Your task to perform on an android device: refresh tabs in the chrome app Image 0: 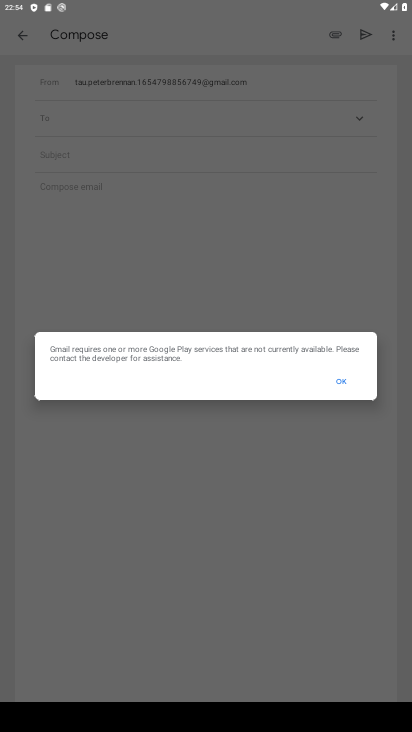
Step 0: press home button
Your task to perform on an android device: refresh tabs in the chrome app Image 1: 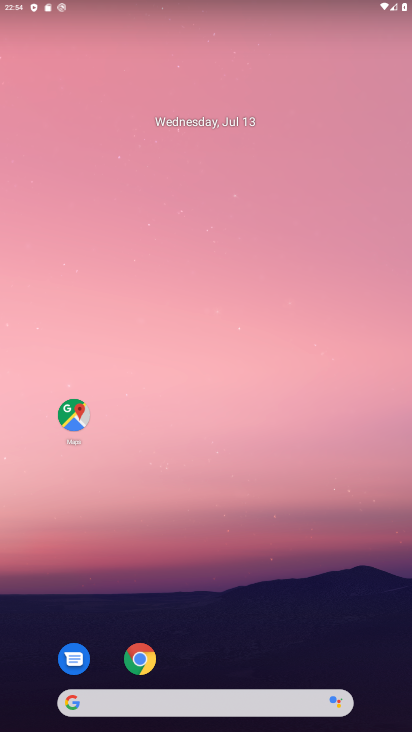
Step 1: click (135, 663)
Your task to perform on an android device: refresh tabs in the chrome app Image 2: 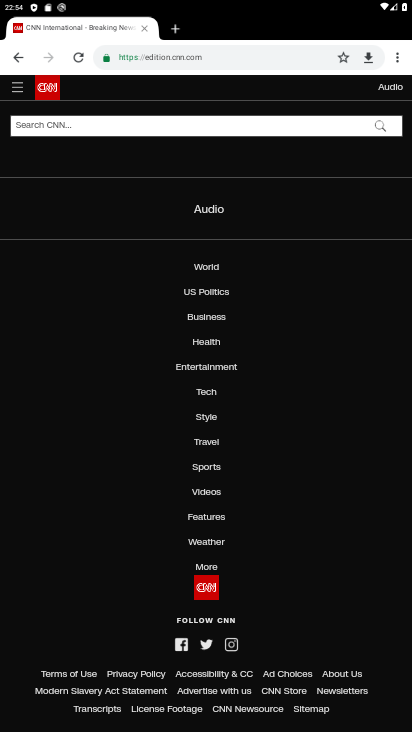
Step 2: click (396, 57)
Your task to perform on an android device: refresh tabs in the chrome app Image 3: 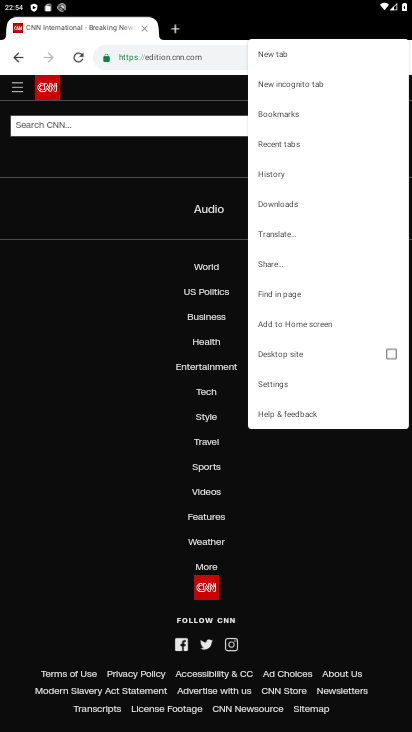
Step 3: click (156, 274)
Your task to perform on an android device: refresh tabs in the chrome app Image 4: 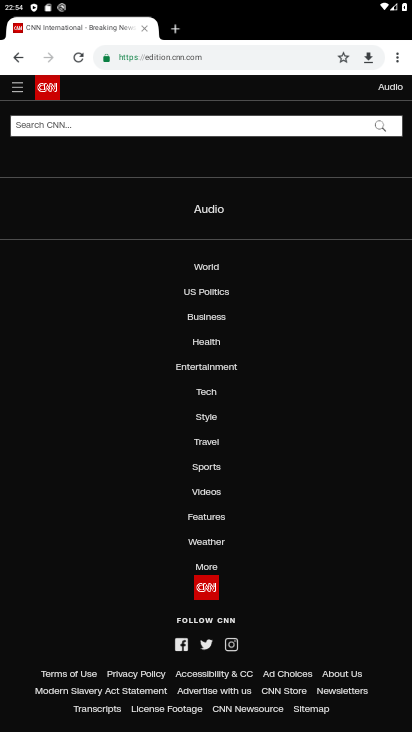
Step 4: click (81, 61)
Your task to perform on an android device: refresh tabs in the chrome app Image 5: 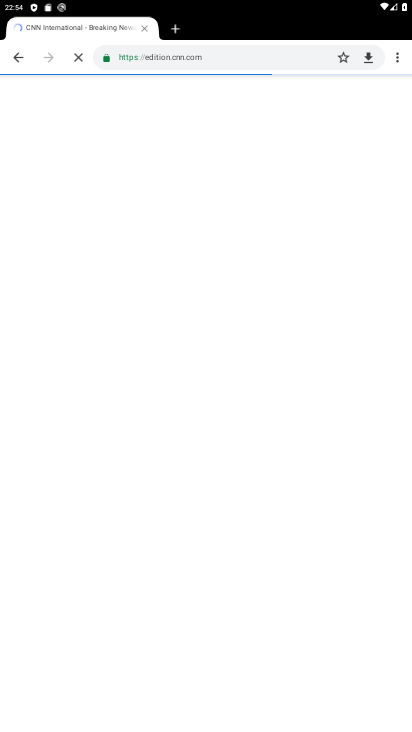
Step 5: task complete